Your task to perform on an android device: open chrome and create a bookmark for the current page Image 0: 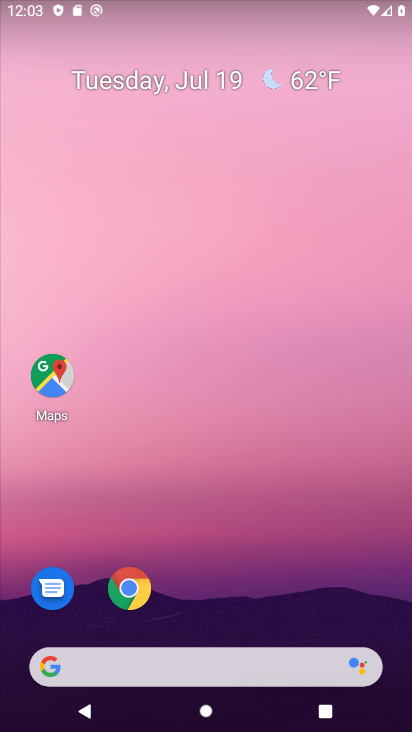
Step 0: click (124, 599)
Your task to perform on an android device: open chrome and create a bookmark for the current page Image 1: 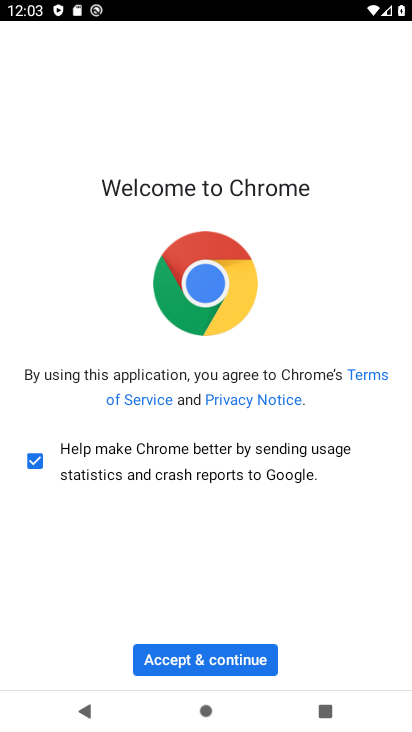
Step 1: click (218, 660)
Your task to perform on an android device: open chrome and create a bookmark for the current page Image 2: 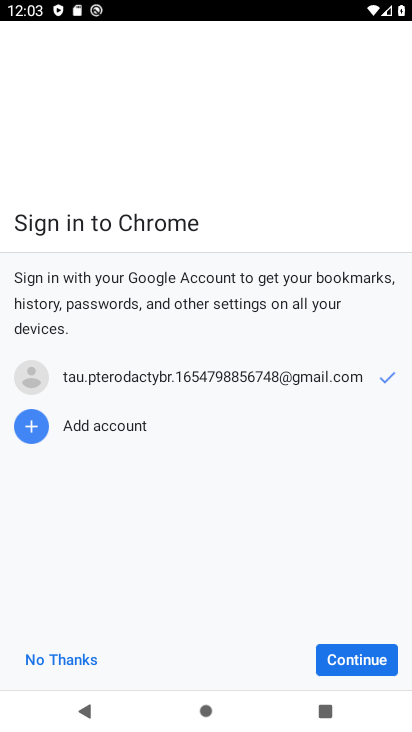
Step 2: click (333, 664)
Your task to perform on an android device: open chrome and create a bookmark for the current page Image 3: 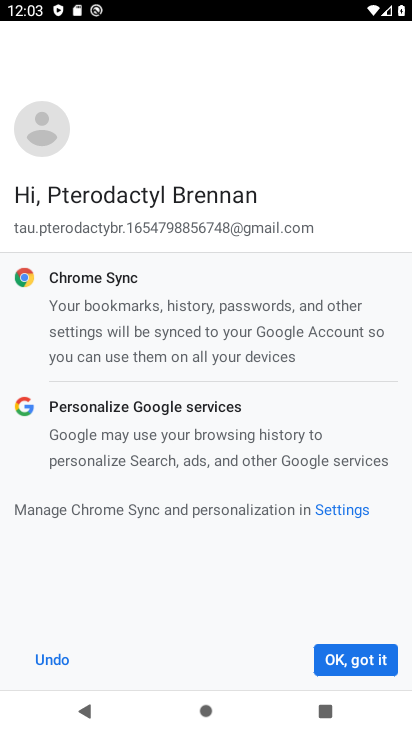
Step 3: click (333, 664)
Your task to perform on an android device: open chrome and create a bookmark for the current page Image 4: 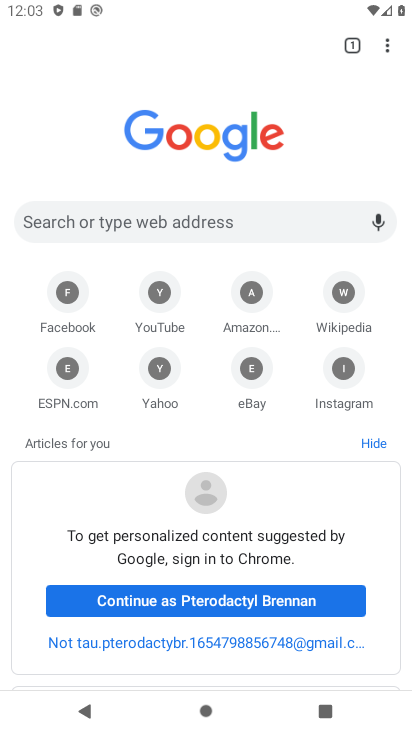
Step 4: click (383, 41)
Your task to perform on an android device: open chrome and create a bookmark for the current page Image 5: 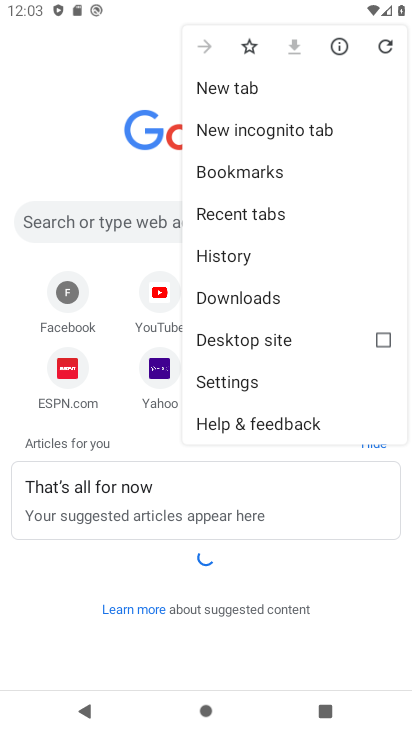
Step 5: click (248, 50)
Your task to perform on an android device: open chrome and create a bookmark for the current page Image 6: 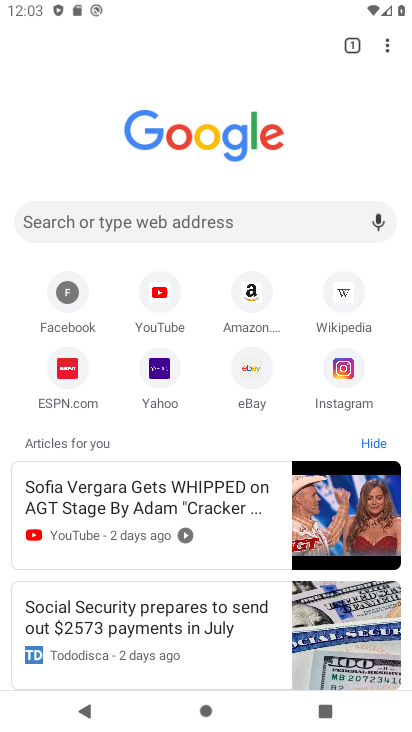
Step 6: task complete